Your task to perform on an android device: see tabs open on other devices in the chrome app Image 0: 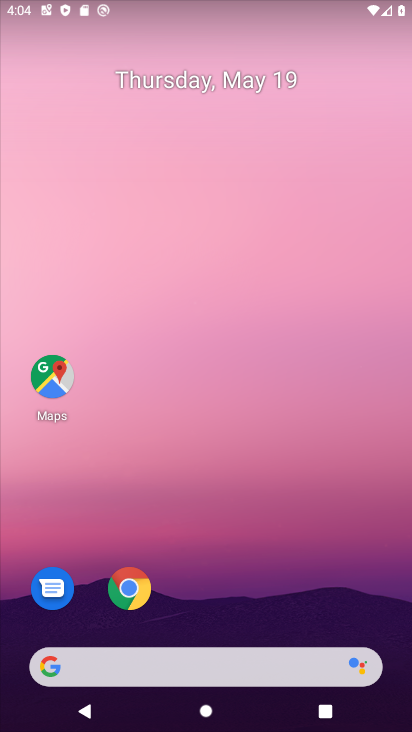
Step 0: click (137, 584)
Your task to perform on an android device: see tabs open on other devices in the chrome app Image 1: 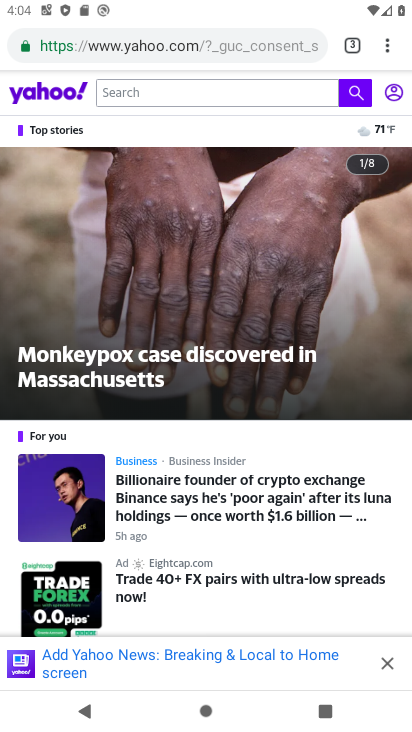
Step 1: click (393, 51)
Your task to perform on an android device: see tabs open on other devices in the chrome app Image 2: 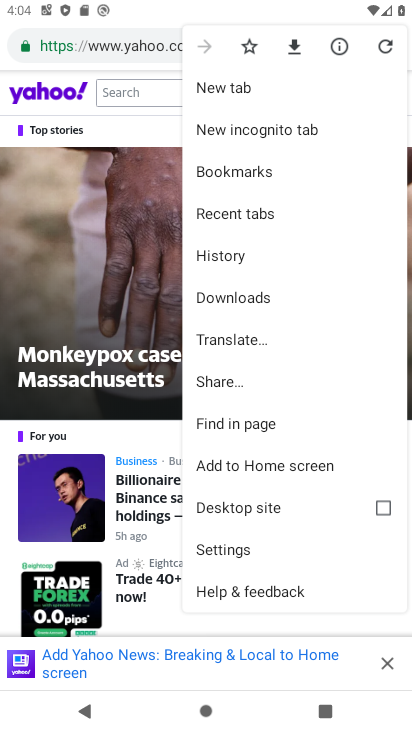
Step 2: click (244, 218)
Your task to perform on an android device: see tabs open on other devices in the chrome app Image 3: 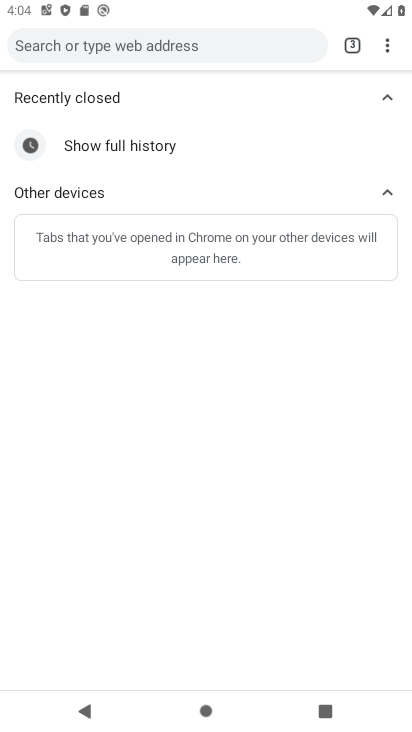
Step 3: task complete